Your task to perform on an android device: change alarm snooze length Image 0: 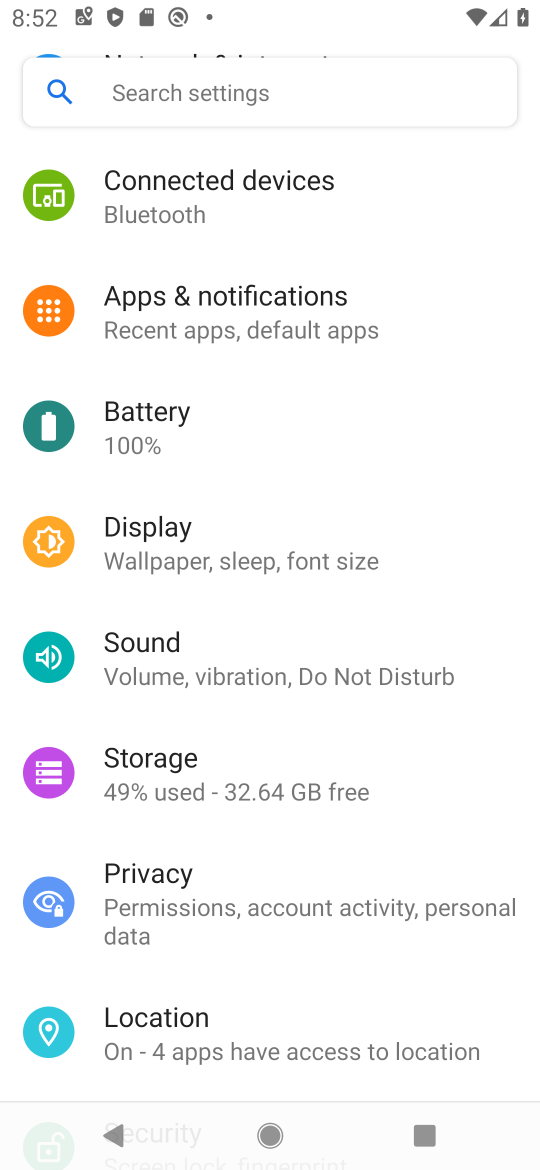
Step 0: press home button
Your task to perform on an android device: change alarm snooze length Image 1: 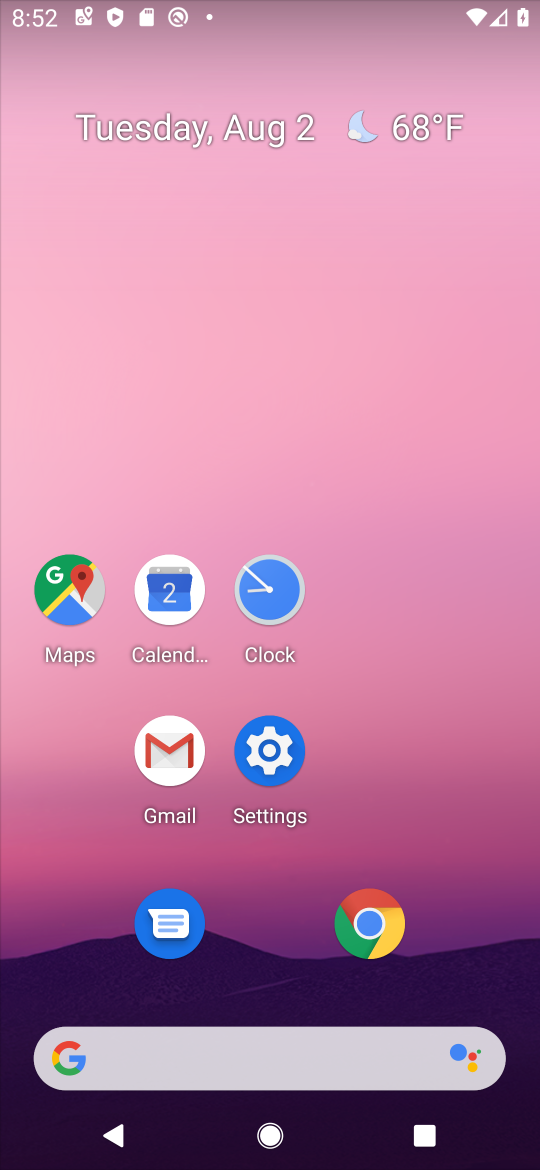
Step 1: click (263, 604)
Your task to perform on an android device: change alarm snooze length Image 2: 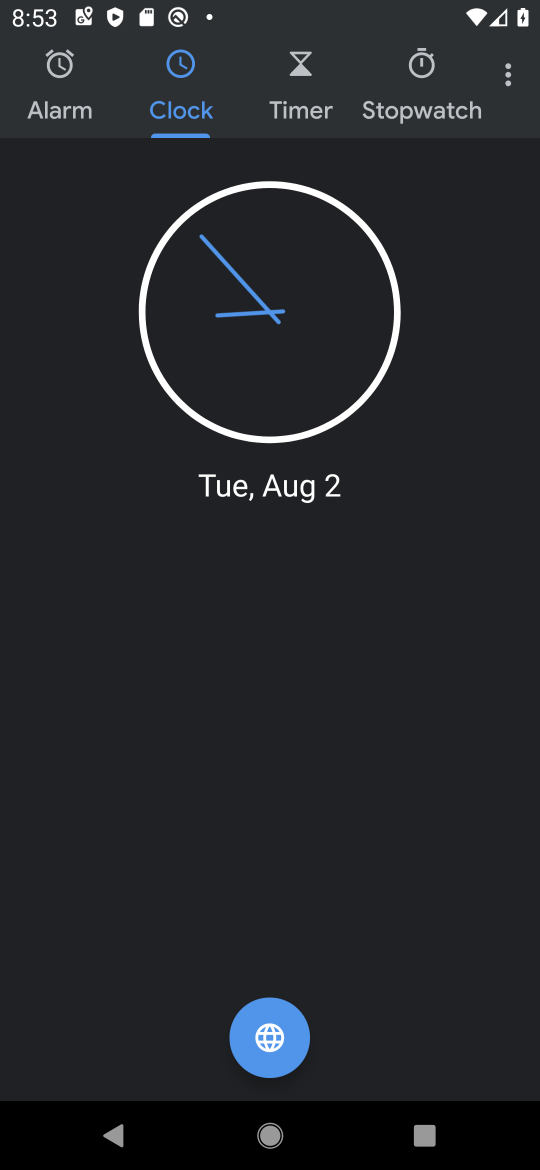
Step 2: click (510, 70)
Your task to perform on an android device: change alarm snooze length Image 3: 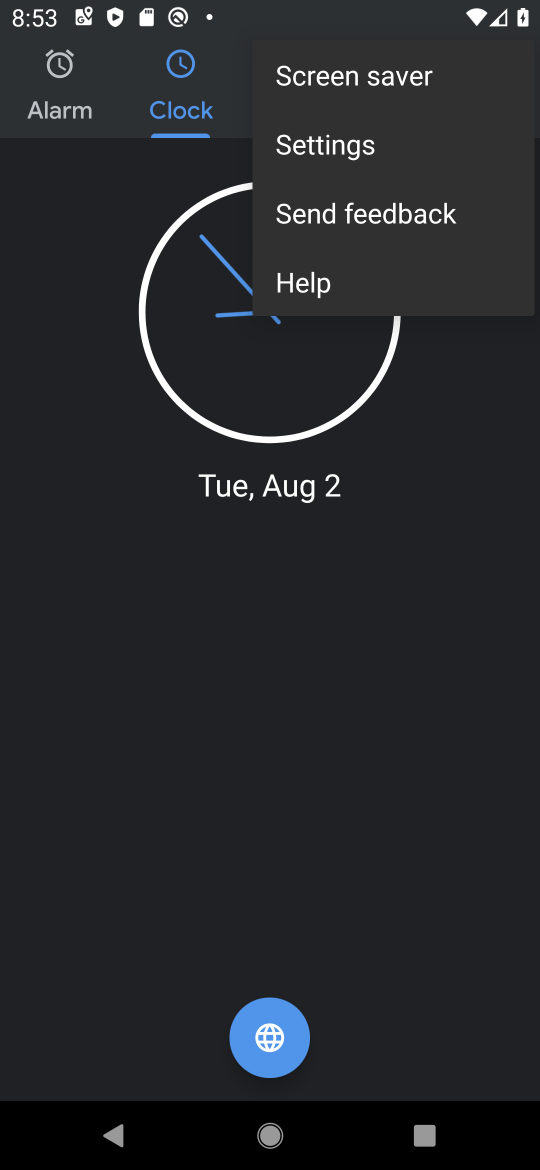
Step 3: click (325, 141)
Your task to perform on an android device: change alarm snooze length Image 4: 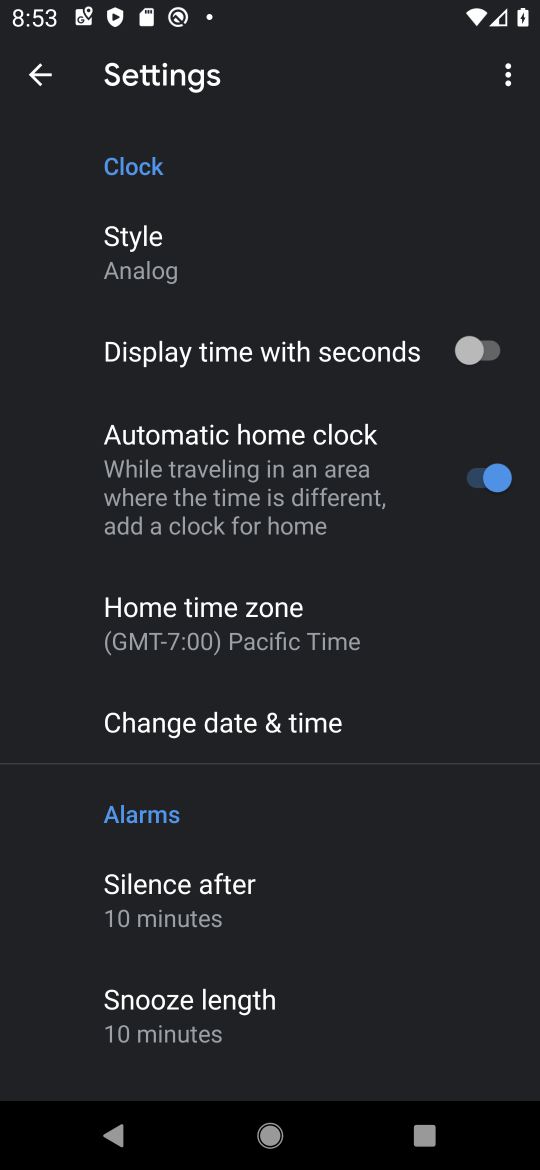
Step 4: click (232, 1009)
Your task to perform on an android device: change alarm snooze length Image 5: 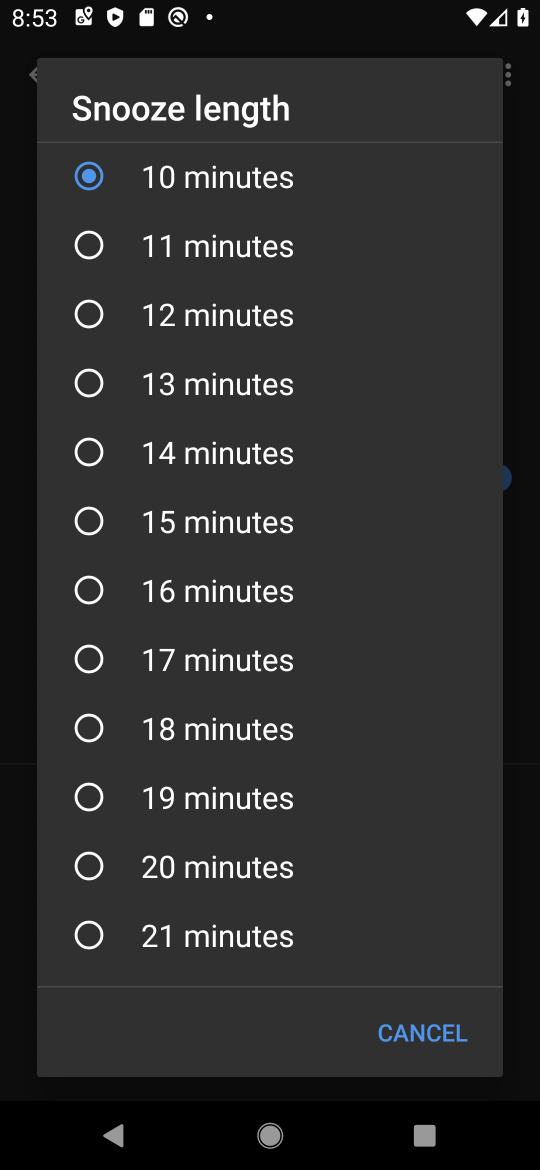
Step 5: click (79, 446)
Your task to perform on an android device: change alarm snooze length Image 6: 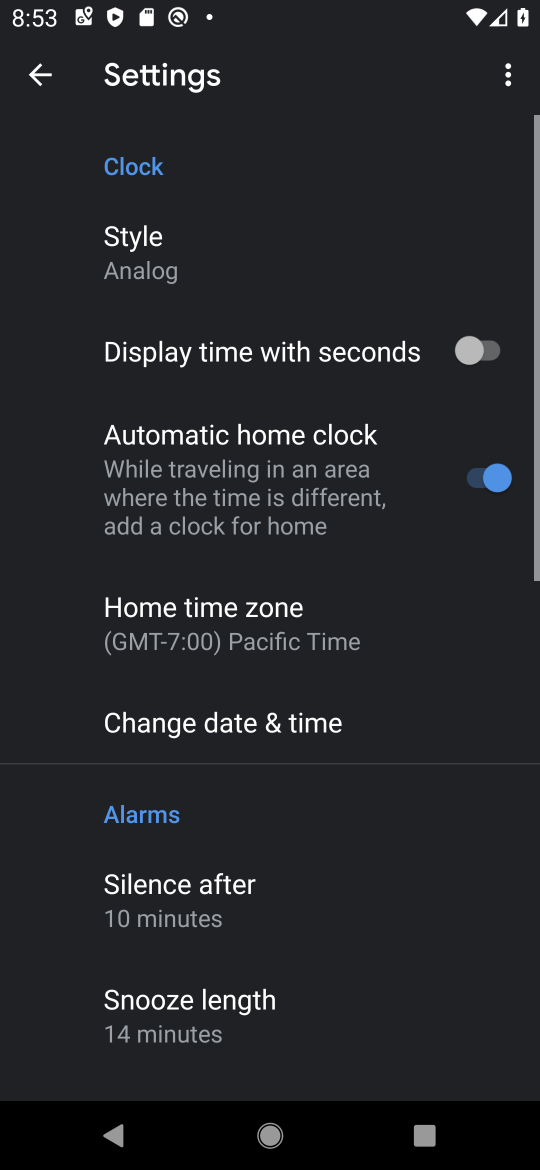
Step 6: task complete